Your task to perform on an android device: turn pop-ups off in chrome Image 0: 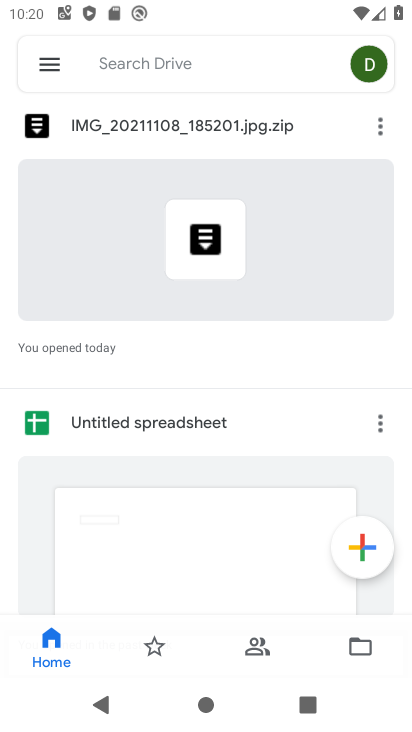
Step 0: press home button
Your task to perform on an android device: turn pop-ups off in chrome Image 1: 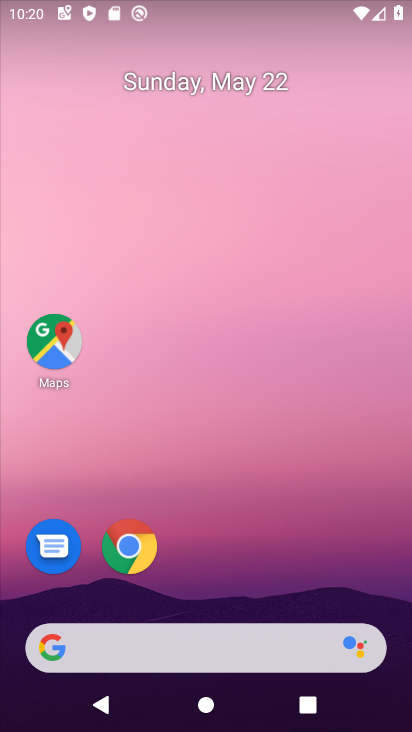
Step 1: click (140, 546)
Your task to perform on an android device: turn pop-ups off in chrome Image 2: 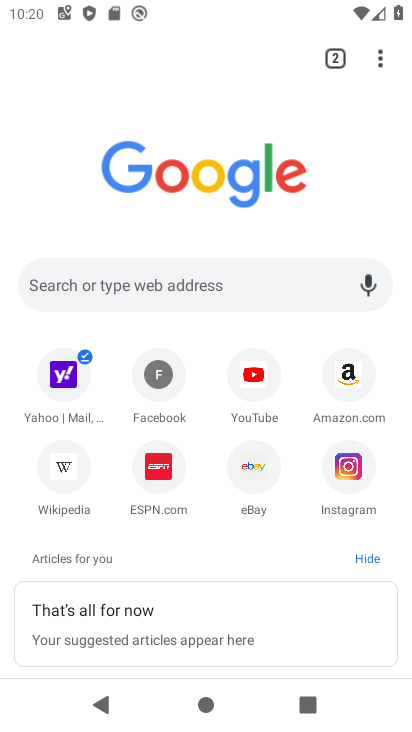
Step 2: click (382, 63)
Your task to perform on an android device: turn pop-ups off in chrome Image 3: 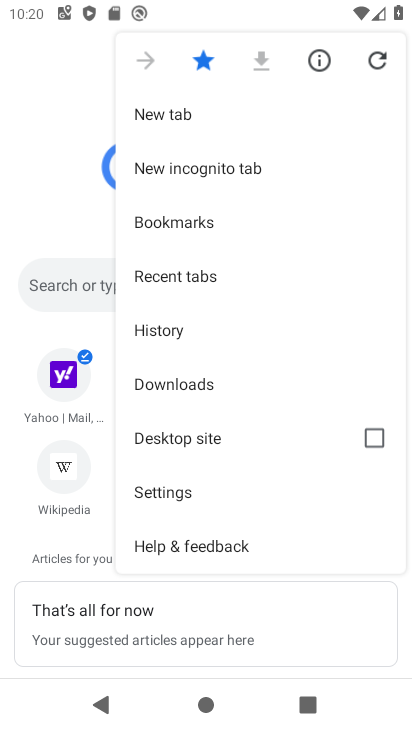
Step 3: click (178, 492)
Your task to perform on an android device: turn pop-ups off in chrome Image 4: 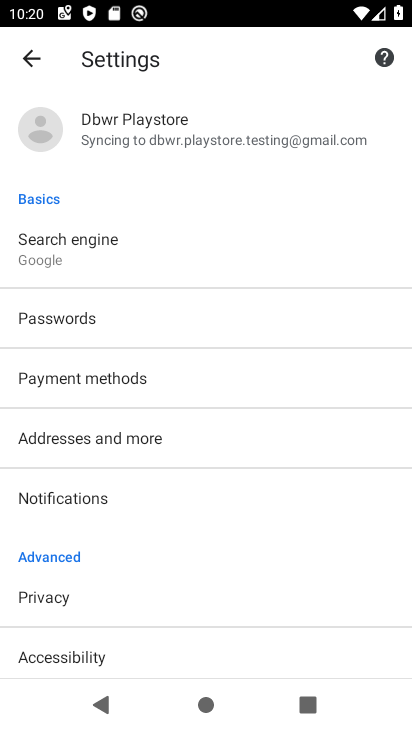
Step 4: drag from (121, 467) to (203, 223)
Your task to perform on an android device: turn pop-ups off in chrome Image 5: 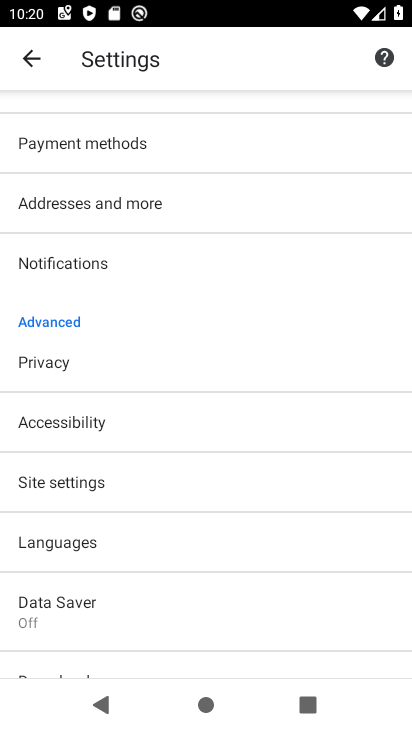
Step 5: click (92, 486)
Your task to perform on an android device: turn pop-ups off in chrome Image 6: 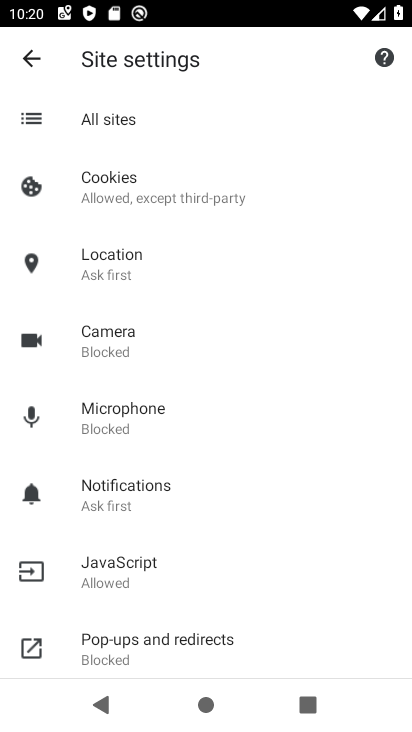
Step 6: click (101, 650)
Your task to perform on an android device: turn pop-ups off in chrome Image 7: 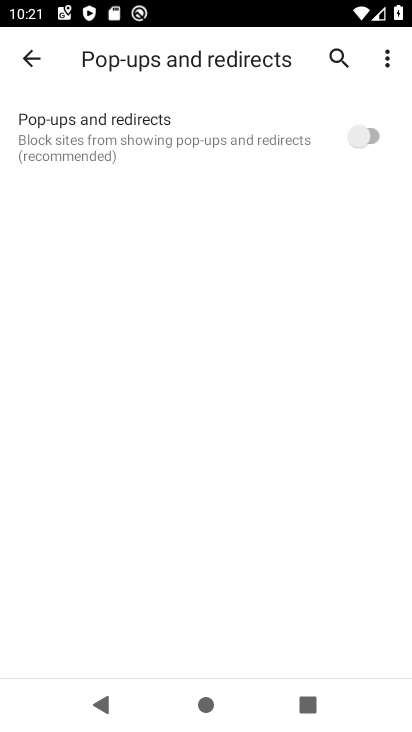
Step 7: task complete